Your task to perform on an android device: find snoozed emails in the gmail app Image 0: 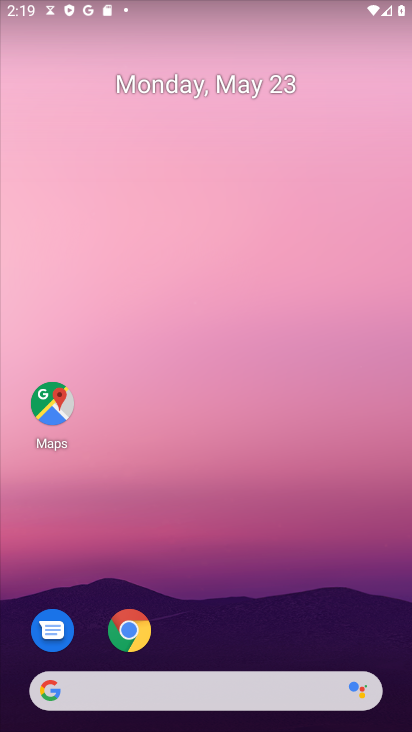
Step 0: drag from (274, 442) to (268, 19)
Your task to perform on an android device: find snoozed emails in the gmail app Image 1: 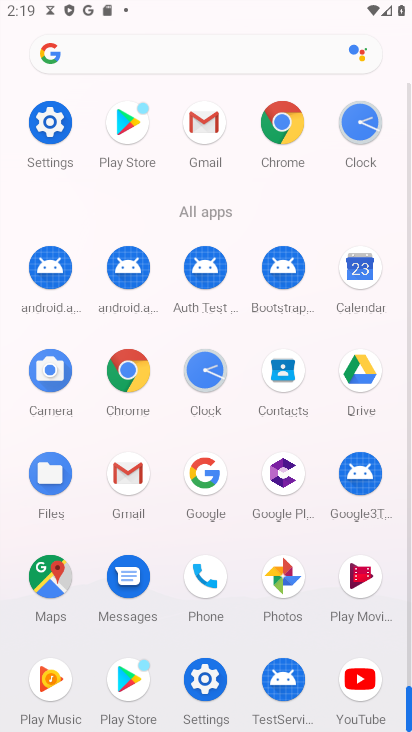
Step 1: click (214, 130)
Your task to perform on an android device: find snoozed emails in the gmail app Image 2: 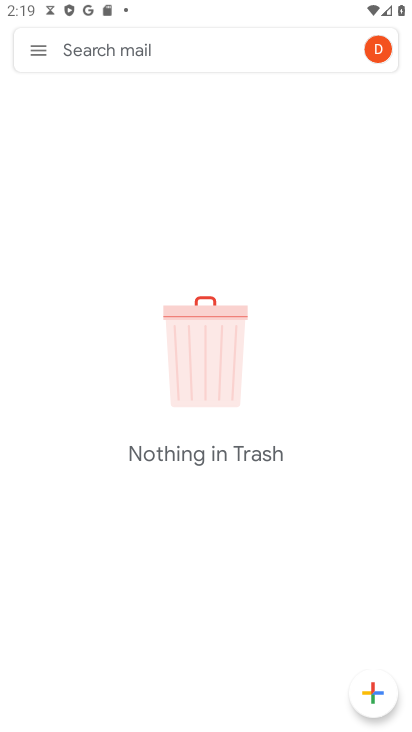
Step 2: click (36, 62)
Your task to perform on an android device: find snoozed emails in the gmail app Image 3: 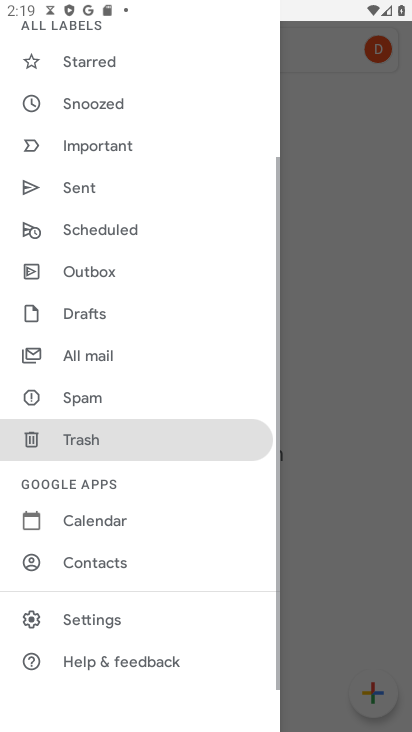
Step 3: drag from (95, 205) to (152, 535)
Your task to perform on an android device: find snoozed emails in the gmail app Image 4: 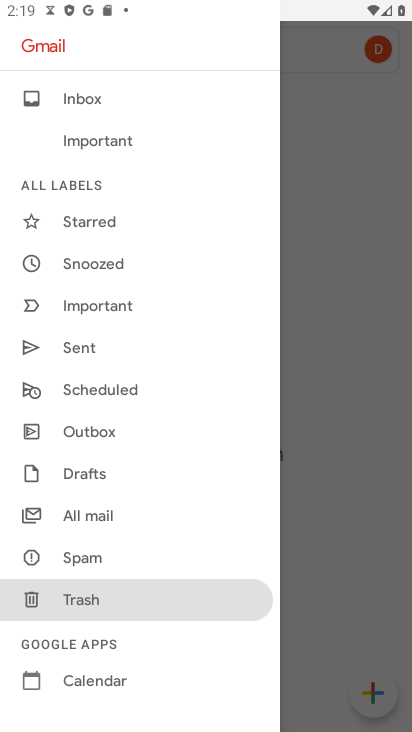
Step 4: click (95, 261)
Your task to perform on an android device: find snoozed emails in the gmail app Image 5: 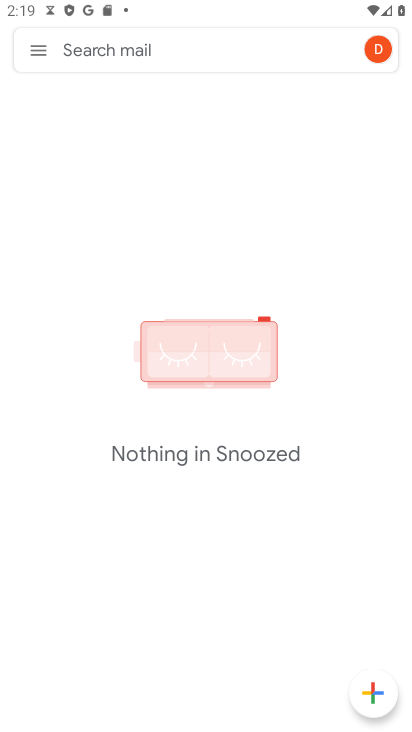
Step 5: task complete